Your task to perform on an android device: change the clock display to analog Image 0: 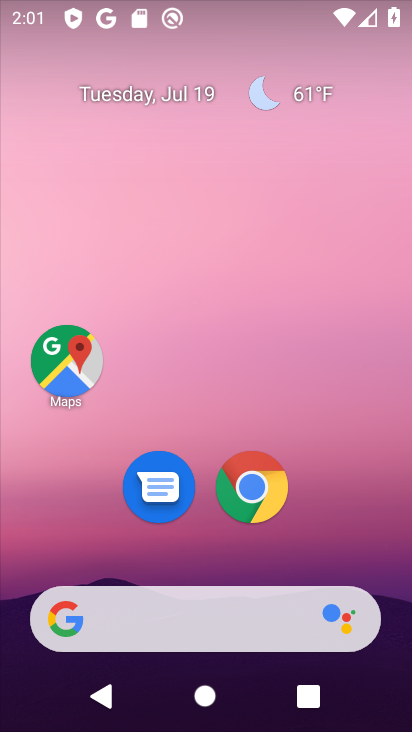
Step 0: drag from (194, 570) to (262, 26)
Your task to perform on an android device: change the clock display to analog Image 1: 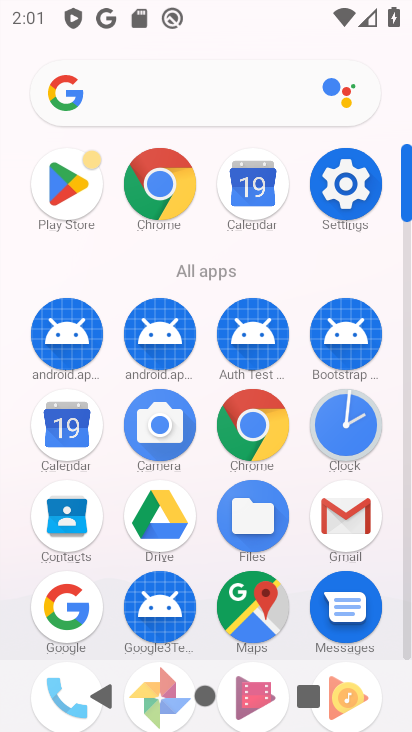
Step 1: click (347, 423)
Your task to perform on an android device: change the clock display to analog Image 2: 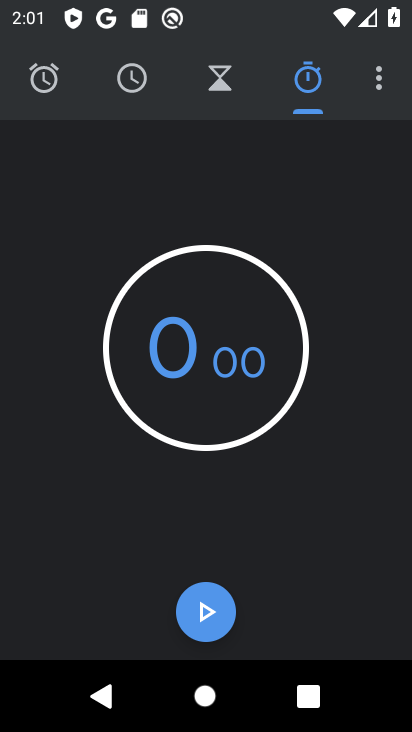
Step 2: click (382, 84)
Your task to perform on an android device: change the clock display to analog Image 3: 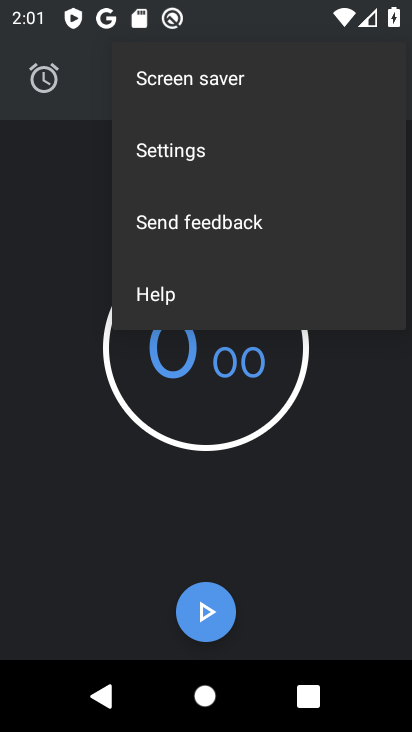
Step 3: click (193, 164)
Your task to perform on an android device: change the clock display to analog Image 4: 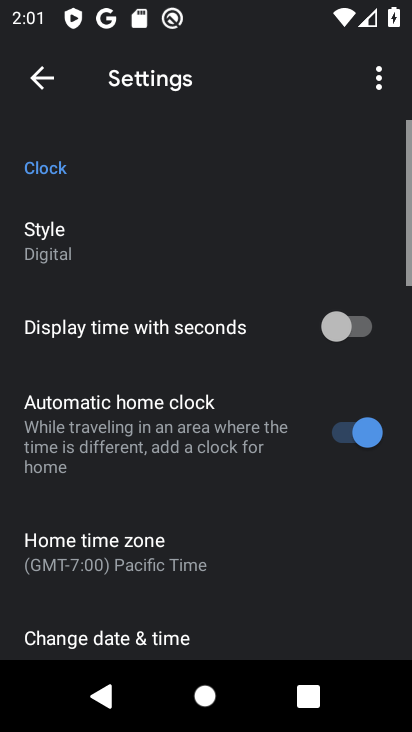
Step 4: click (60, 232)
Your task to perform on an android device: change the clock display to analog Image 5: 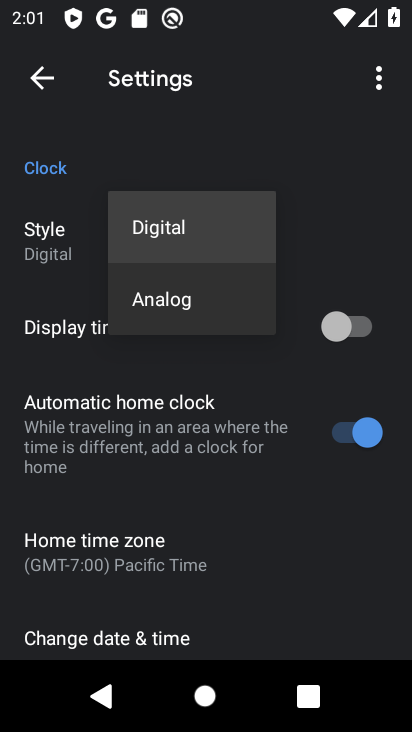
Step 5: click (157, 300)
Your task to perform on an android device: change the clock display to analog Image 6: 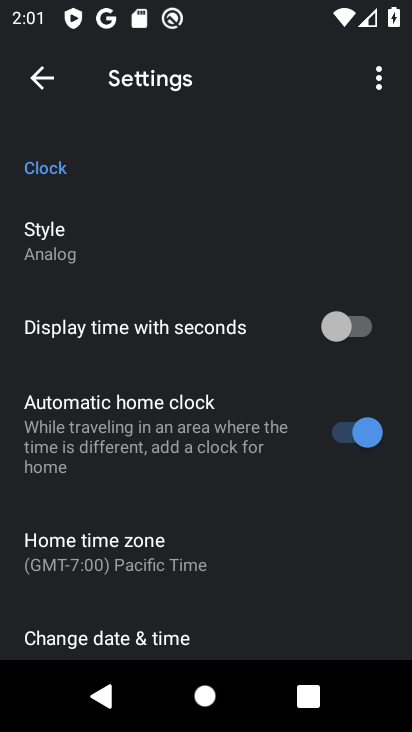
Step 6: task complete